Your task to perform on an android device: Open calendar and show me the first week of next month Image 0: 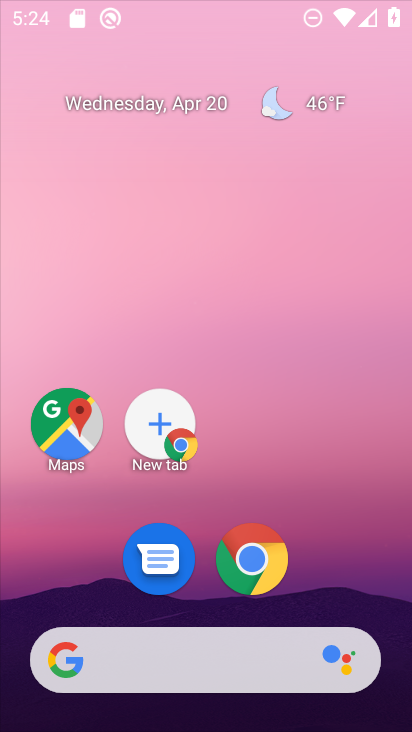
Step 0: drag from (329, 381) to (362, 29)
Your task to perform on an android device: Open calendar and show me the first week of next month Image 1: 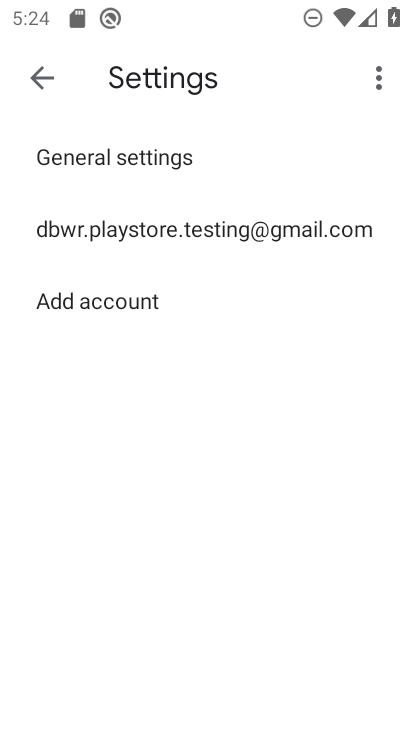
Step 1: click (29, 82)
Your task to perform on an android device: Open calendar and show me the first week of next month Image 2: 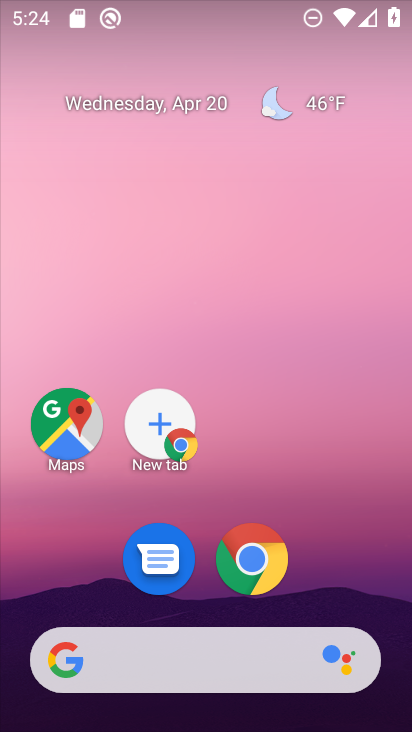
Step 2: drag from (314, 516) to (276, 58)
Your task to perform on an android device: Open calendar and show me the first week of next month Image 3: 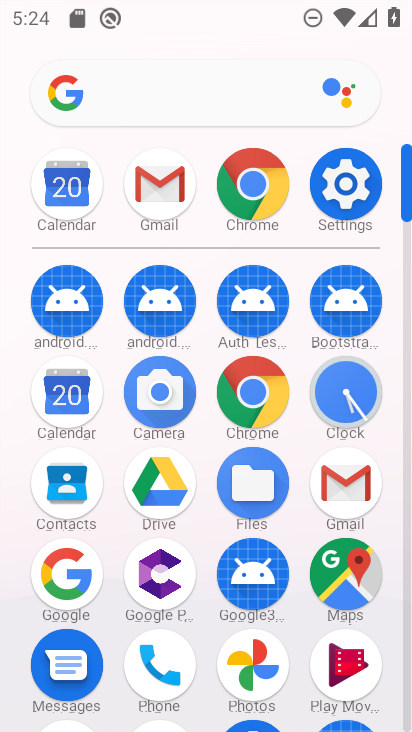
Step 3: click (76, 410)
Your task to perform on an android device: Open calendar and show me the first week of next month Image 4: 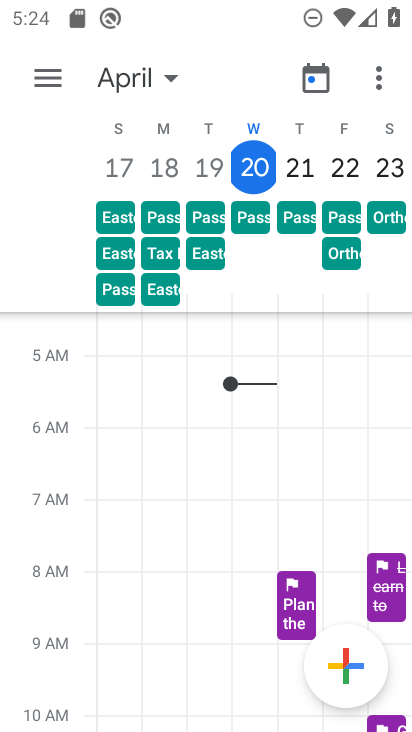
Step 4: click (150, 92)
Your task to perform on an android device: Open calendar and show me the first week of next month Image 5: 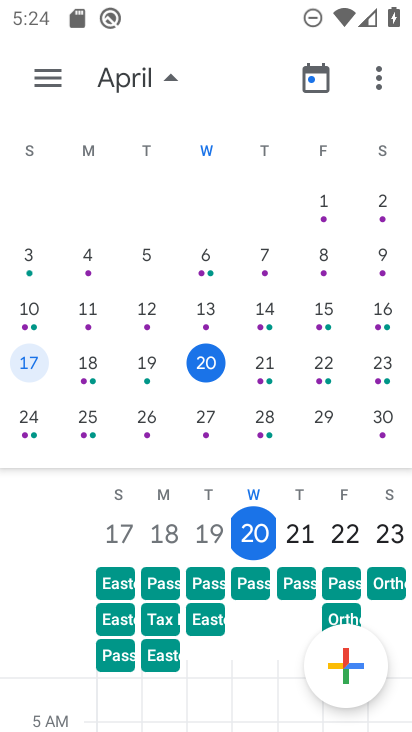
Step 5: drag from (371, 362) to (4, 353)
Your task to perform on an android device: Open calendar and show me the first week of next month Image 6: 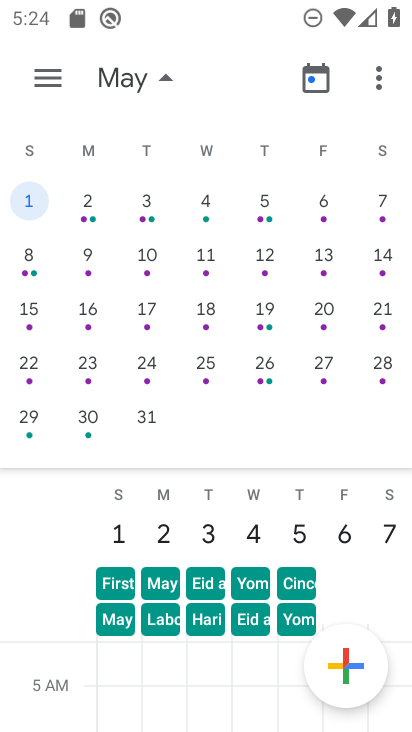
Step 6: click (153, 204)
Your task to perform on an android device: Open calendar and show me the first week of next month Image 7: 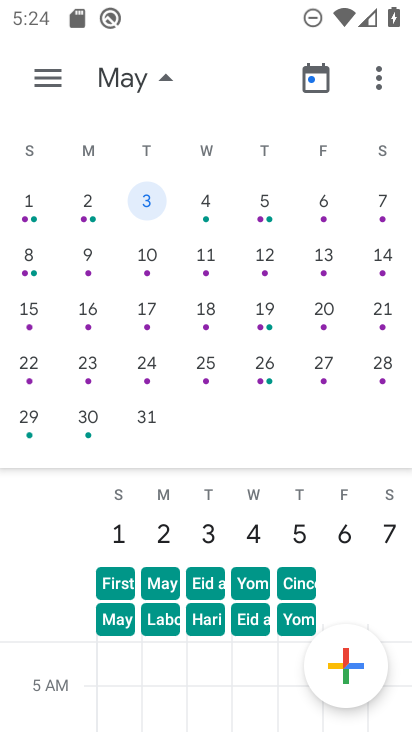
Step 7: task complete